Your task to perform on an android device: turn off javascript in the chrome app Image 0: 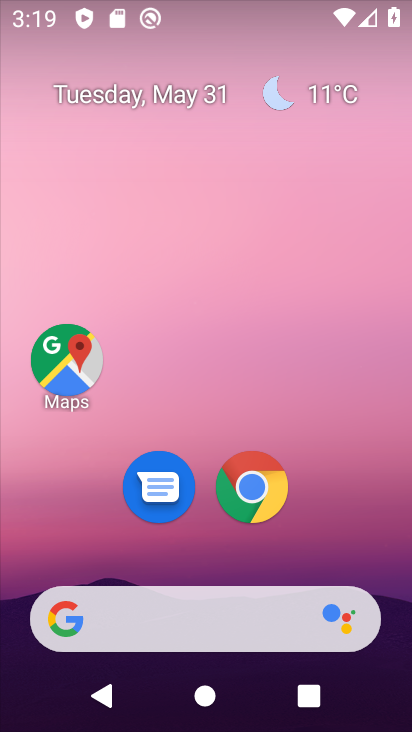
Step 0: click (253, 484)
Your task to perform on an android device: turn off javascript in the chrome app Image 1: 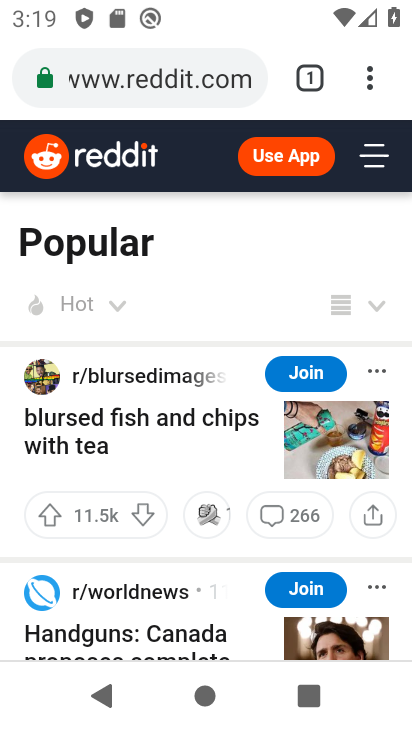
Step 1: click (371, 78)
Your task to perform on an android device: turn off javascript in the chrome app Image 2: 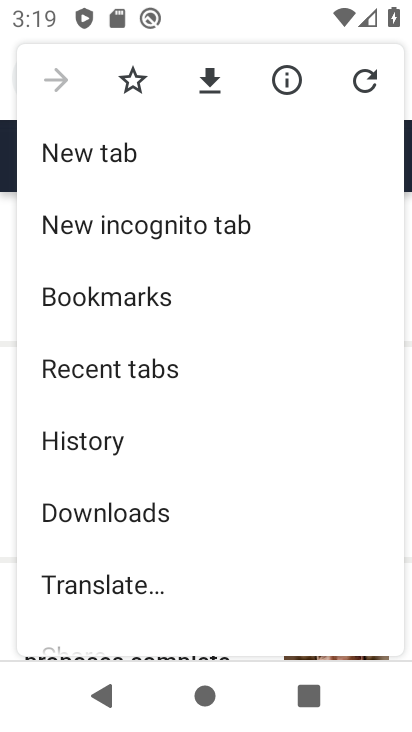
Step 2: drag from (138, 413) to (146, 314)
Your task to perform on an android device: turn off javascript in the chrome app Image 3: 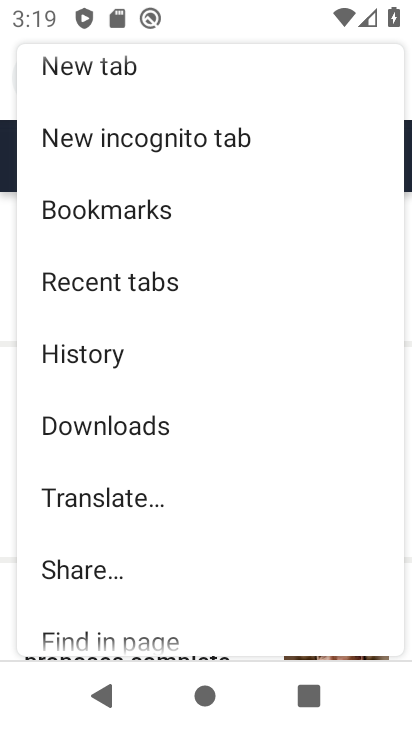
Step 3: drag from (138, 392) to (151, 314)
Your task to perform on an android device: turn off javascript in the chrome app Image 4: 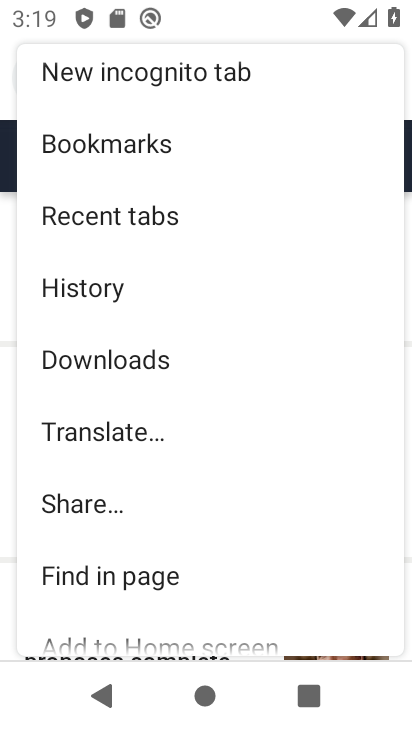
Step 4: drag from (111, 387) to (165, 307)
Your task to perform on an android device: turn off javascript in the chrome app Image 5: 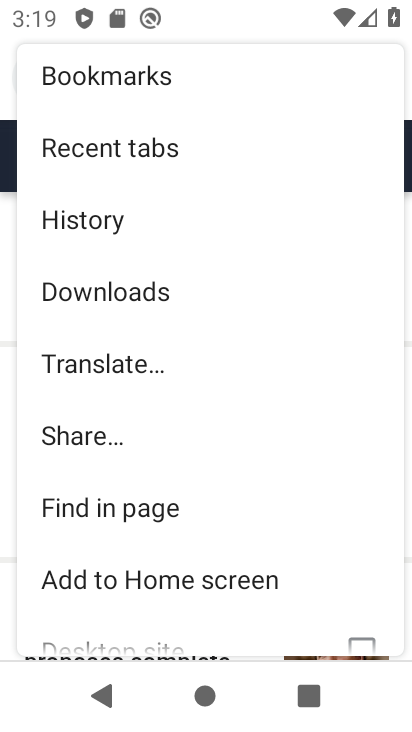
Step 5: drag from (125, 399) to (153, 334)
Your task to perform on an android device: turn off javascript in the chrome app Image 6: 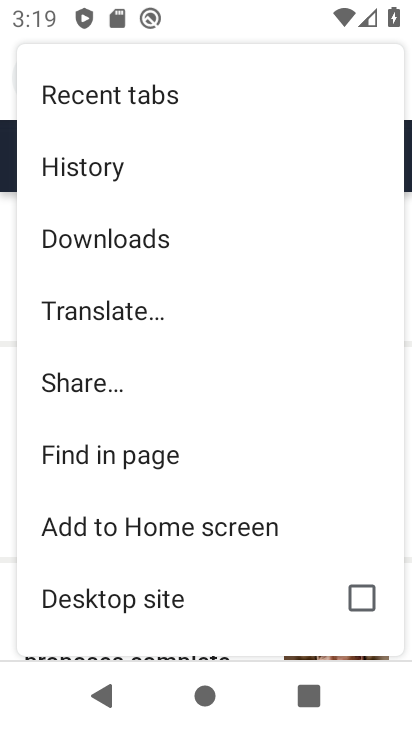
Step 6: drag from (105, 418) to (151, 345)
Your task to perform on an android device: turn off javascript in the chrome app Image 7: 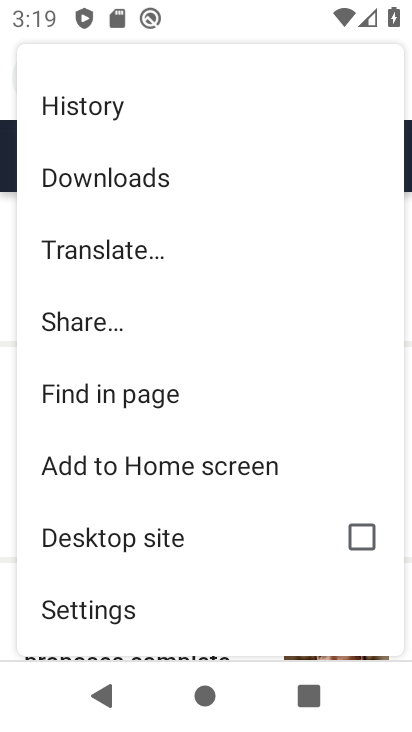
Step 7: drag from (82, 425) to (130, 343)
Your task to perform on an android device: turn off javascript in the chrome app Image 8: 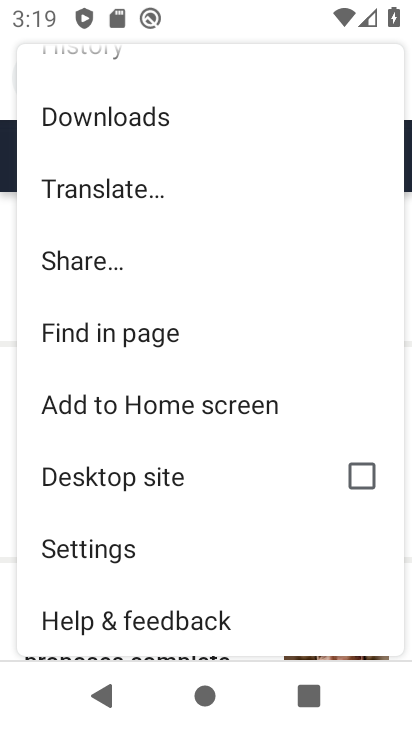
Step 8: drag from (96, 434) to (160, 347)
Your task to perform on an android device: turn off javascript in the chrome app Image 9: 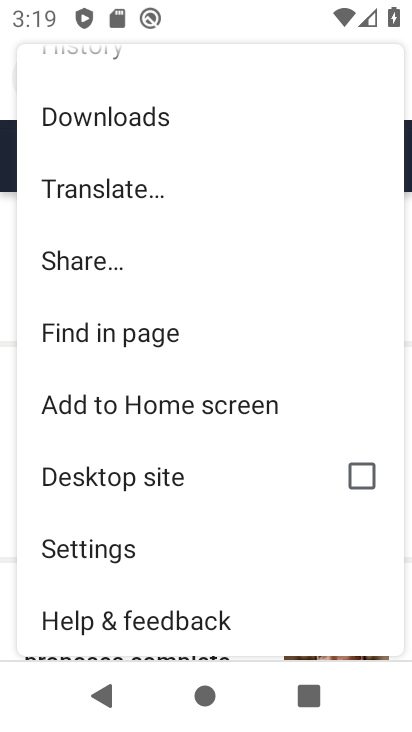
Step 9: click (117, 550)
Your task to perform on an android device: turn off javascript in the chrome app Image 10: 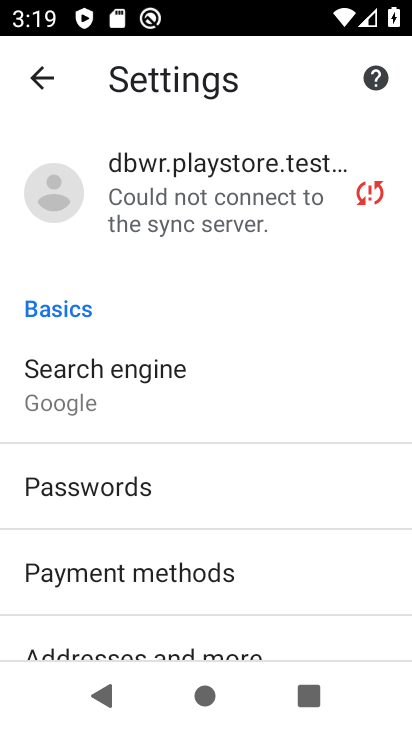
Step 10: drag from (168, 485) to (207, 376)
Your task to perform on an android device: turn off javascript in the chrome app Image 11: 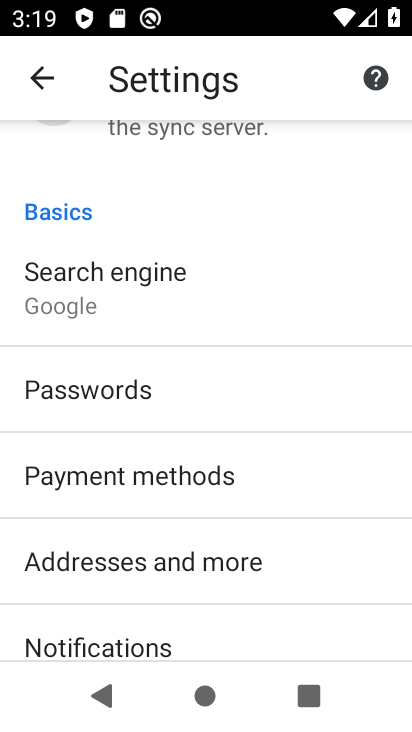
Step 11: drag from (127, 455) to (202, 336)
Your task to perform on an android device: turn off javascript in the chrome app Image 12: 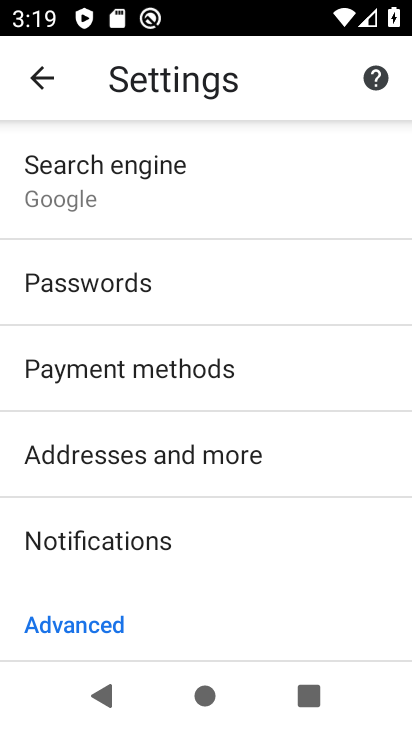
Step 12: drag from (134, 488) to (183, 399)
Your task to perform on an android device: turn off javascript in the chrome app Image 13: 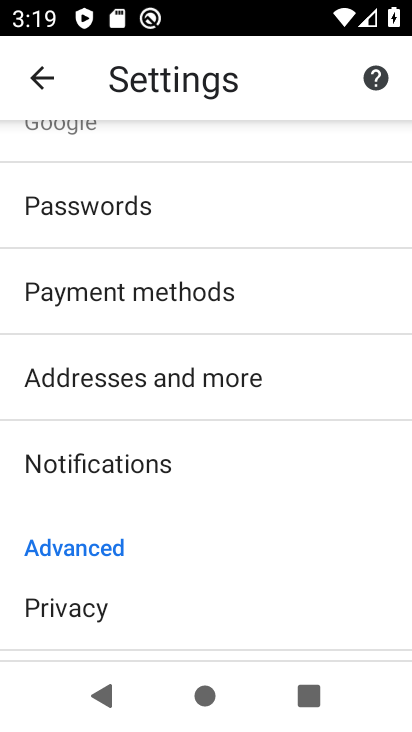
Step 13: drag from (105, 508) to (201, 397)
Your task to perform on an android device: turn off javascript in the chrome app Image 14: 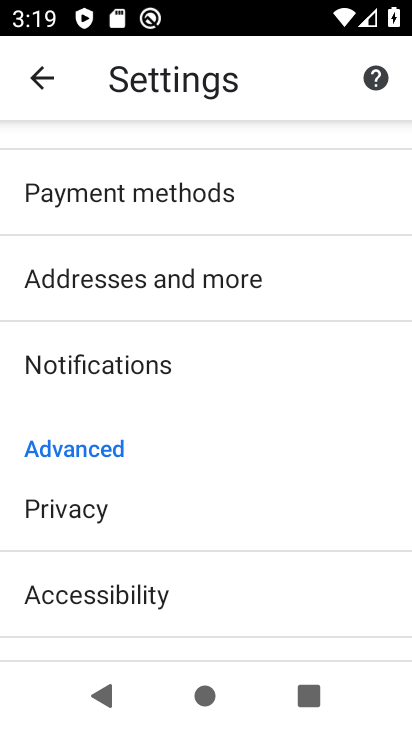
Step 14: drag from (116, 530) to (193, 435)
Your task to perform on an android device: turn off javascript in the chrome app Image 15: 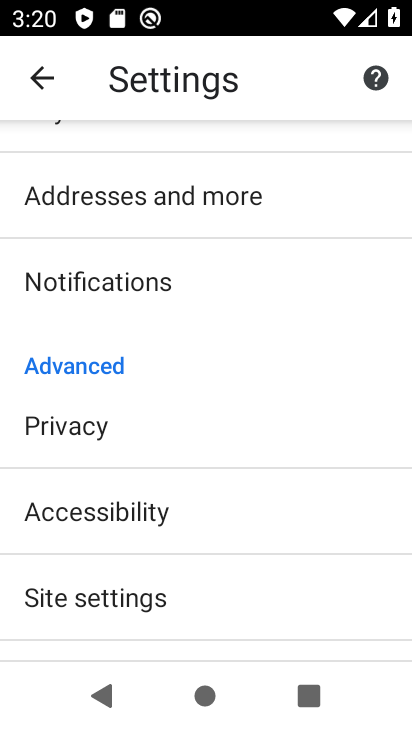
Step 15: drag from (111, 527) to (176, 442)
Your task to perform on an android device: turn off javascript in the chrome app Image 16: 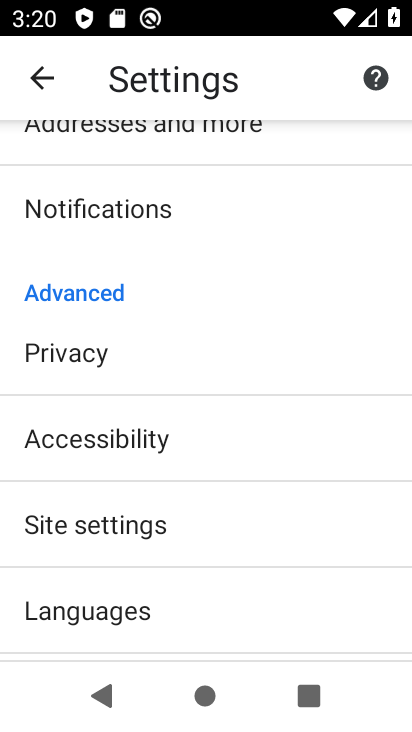
Step 16: drag from (98, 540) to (177, 447)
Your task to perform on an android device: turn off javascript in the chrome app Image 17: 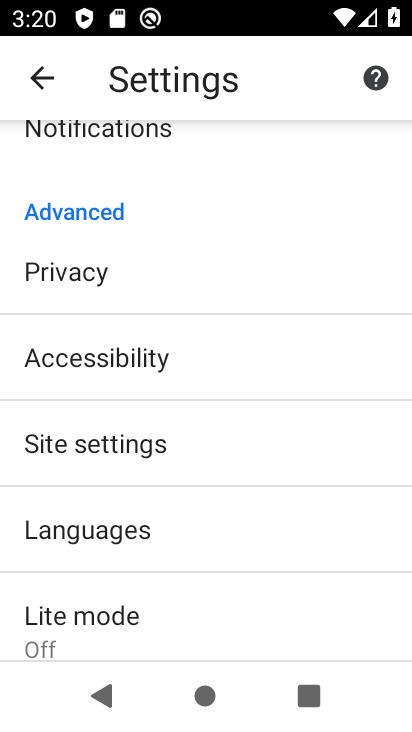
Step 17: click (147, 444)
Your task to perform on an android device: turn off javascript in the chrome app Image 18: 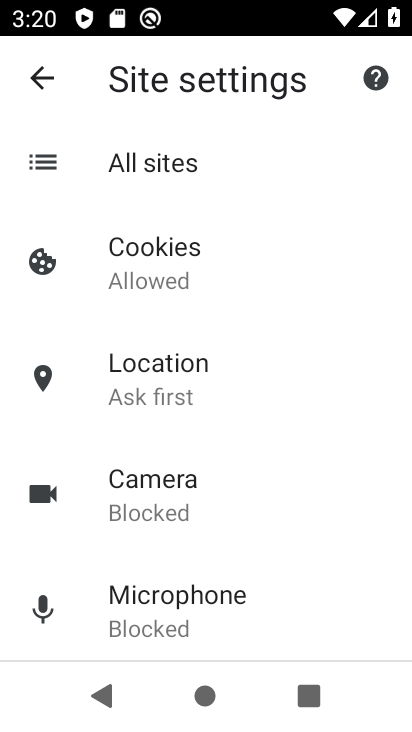
Step 18: drag from (152, 546) to (209, 431)
Your task to perform on an android device: turn off javascript in the chrome app Image 19: 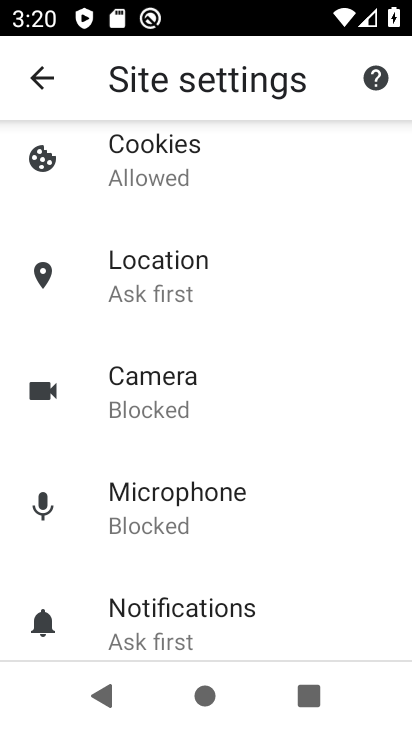
Step 19: drag from (170, 555) to (241, 434)
Your task to perform on an android device: turn off javascript in the chrome app Image 20: 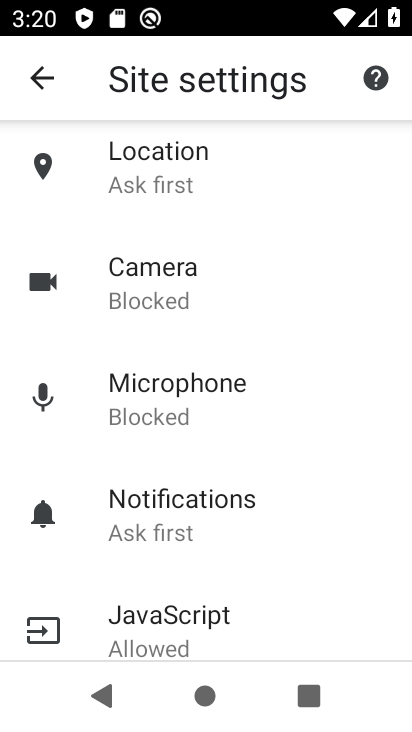
Step 20: drag from (167, 562) to (241, 465)
Your task to perform on an android device: turn off javascript in the chrome app Image 21: 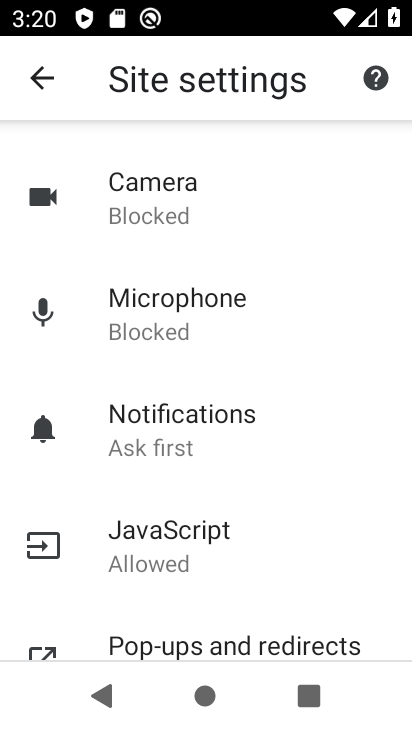
Step 21: click (184, 533)
Your task to perform on an android device: turn off javascript in the chrome app Image 22: 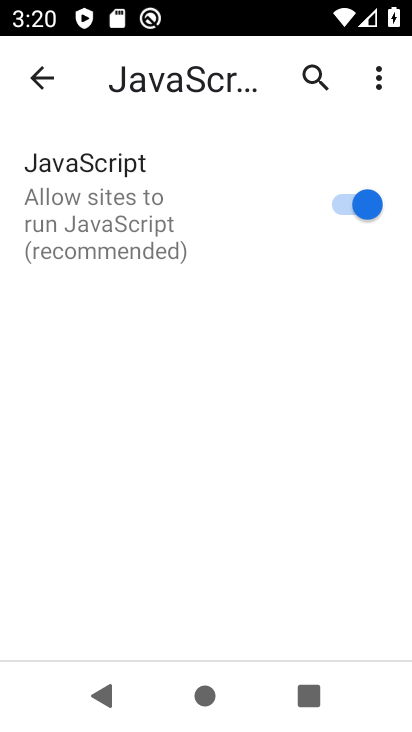
Step 22: click (344, 202)
Your task to perform on an android device: turn off javascript in the chrome app Image 23: 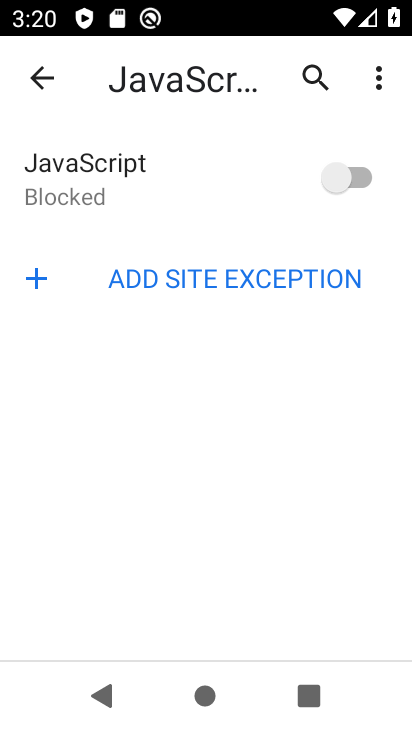
Step 23: task complete